Your task to perform on an android device: Check the weather Image 0: 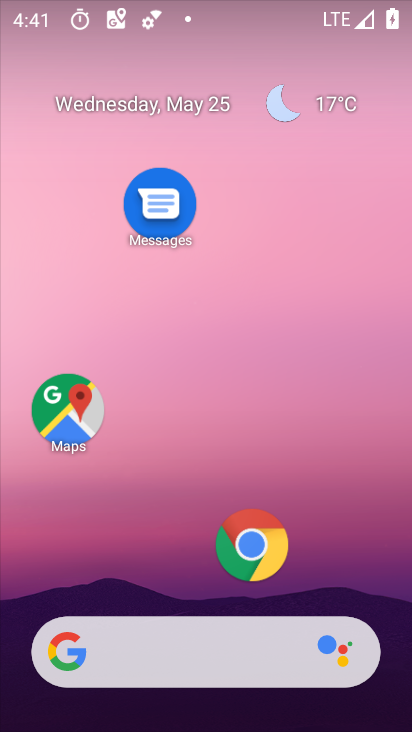
Step 0: click (155, 642)
Your task to perform on an android device: Check the weather Image 1: 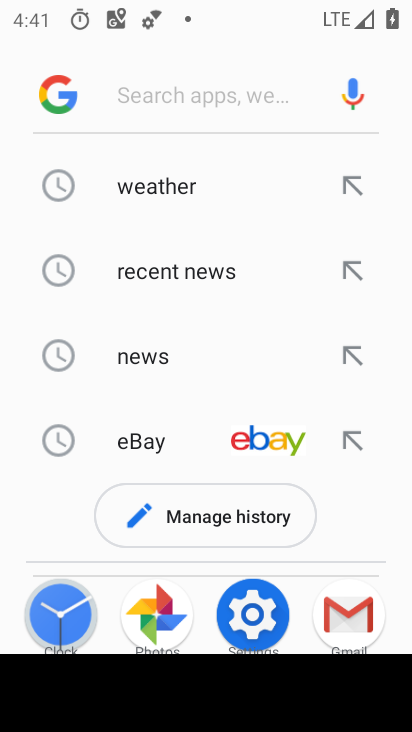
Step 1: click (139, 197)
Your task to perform on an android device: Check the weather Image 2: 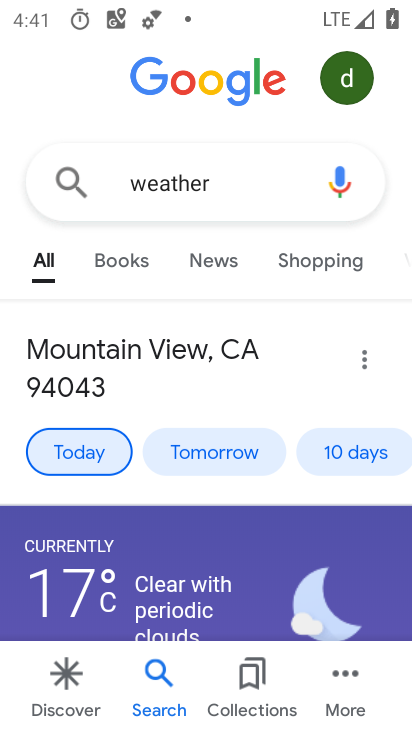
Step 2: task complete